Your task to perform on an android device: clear all cookies in the chrome app Image 0: 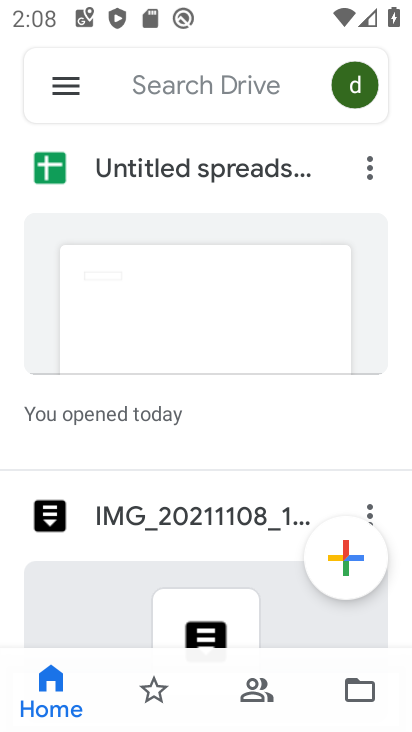
Step 0: press home button
Your task to perform on an android device: clear all cookies in the chrome app Image 1: 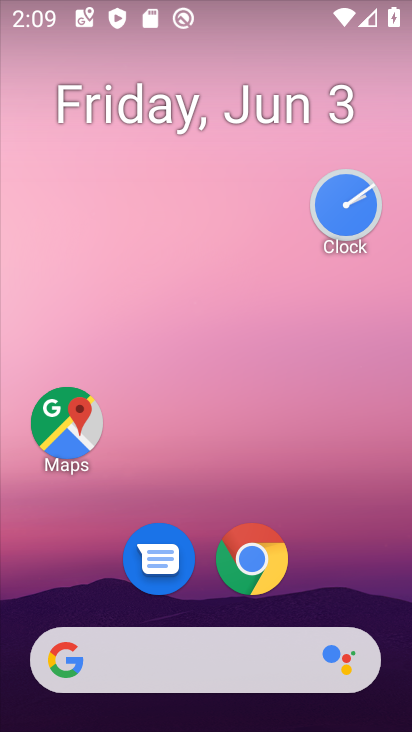
Step 1: click (264, 546)
Your task to perform on an android device: clear all cookies in the chrome app Image 2: 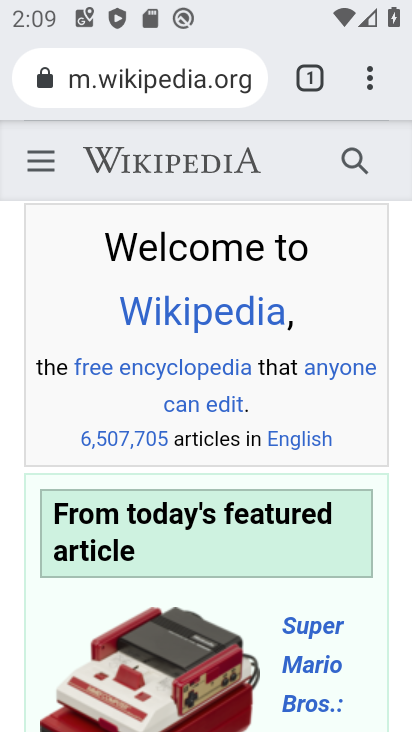
Step 2: click (375, 79)
Your task to perform on an android device: clear all cookies in the chrome app Image 3: 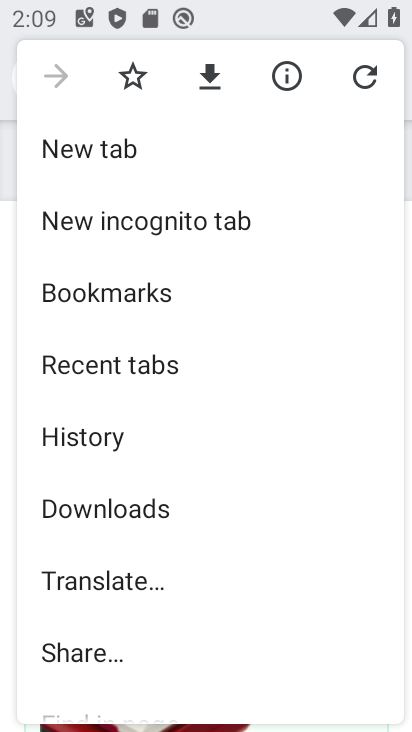
Step 3: drag from (293, 568) to (290, 261)
Your task to perform on an android device: clear all cookies in the chrome app Image 4: 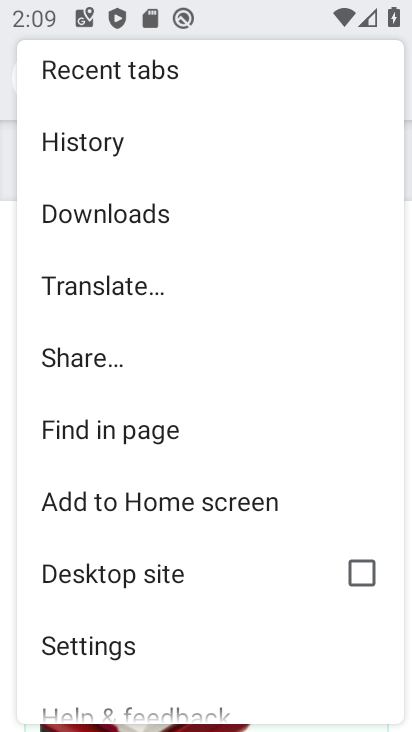
Step 4: click (198, 641)
Your task to perform on an android device: clear all cookies in the chrome app Image 5: 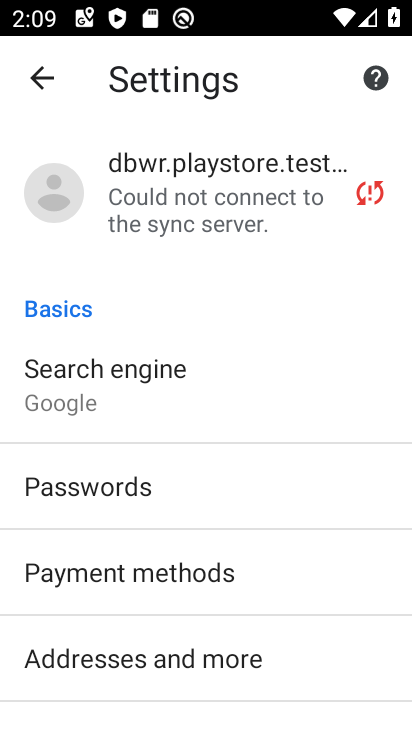
Step 5: drag from (234, 625) to (254, 356)
Your task to perform on an android device: clear all cookies in the chrome app Image 6: 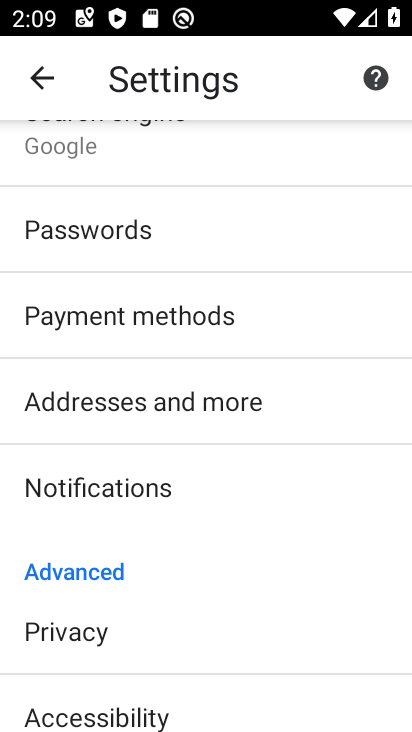
Step 6: drag from (231, 554) to (264, 273)
Your task to perform on an android device: clear all cookies in the chrome app Image 7: 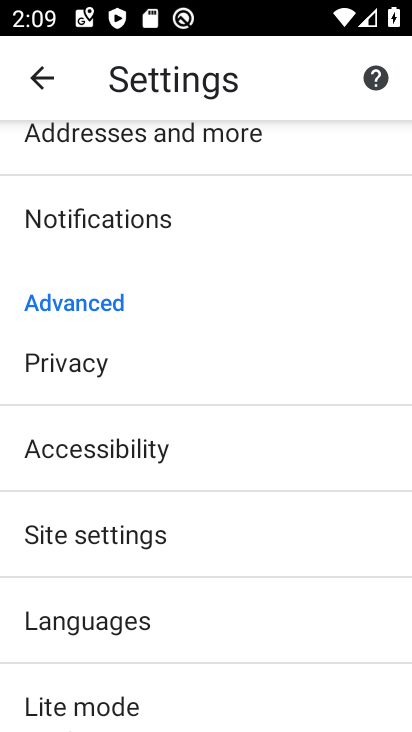
Step 7: click (232, 380)
Your task to perform on an android device: clear all cookies in the chrome app Image 8: 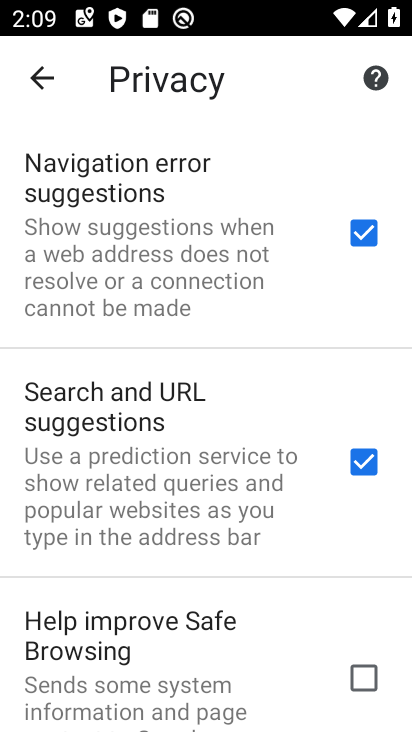
Step 8: drag from (247, 613) to (229, 287)
Your task to perform on an android device: clear all cookies in the chrome app Image 9: 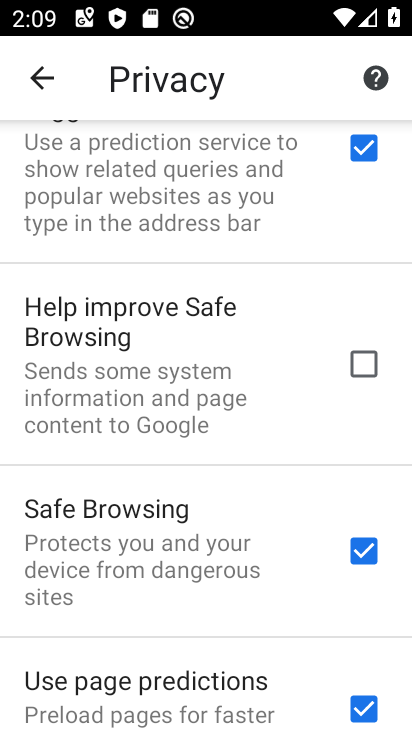
Step 9: drag from (252, 635) to (247, 299)
Your task to perform on an android device: clear all cookies in the chrome app Image 10: 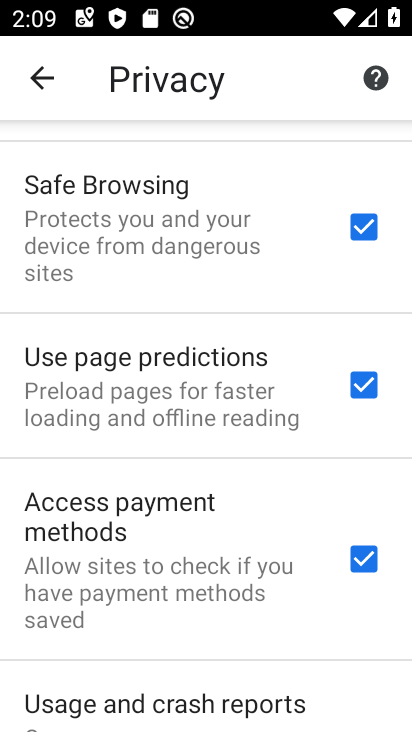
Step 10: drag from (259, 609) to (252, 227)
Your task to perform on an android device: clear all cookies in the chrome app Image 11: 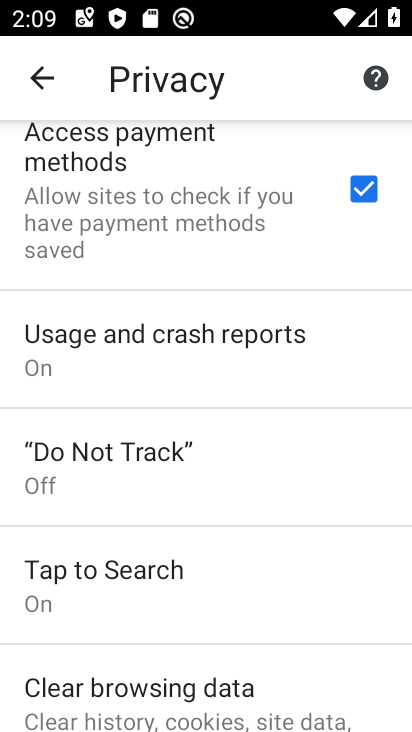
Step 11: drag from (277, 580) to (262, 344)
Your task to perform on an android device: clear all cookies in the chrome app Image 12: 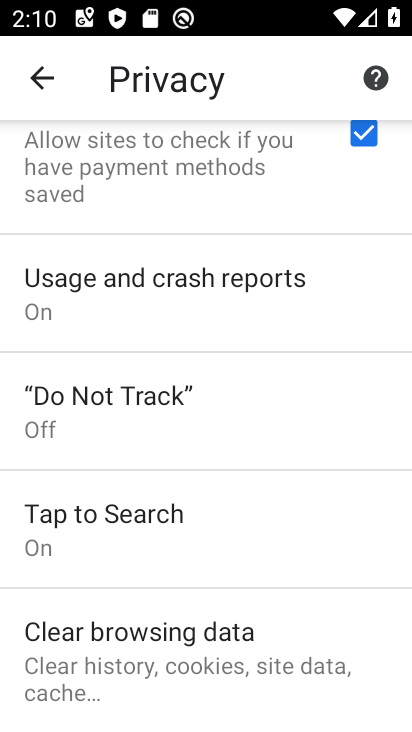
Step 12: click (243, 646)
Your task to perform on an android device: clear all cookies in the chrome app Image 13: 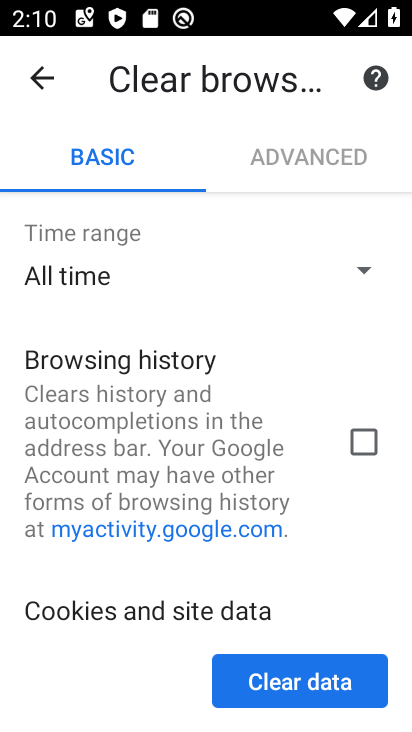
Step 13: drag from (295, 497) to (300, 231)
Your task to perform on an android device: clear all cookies in the chrome app Image 14: 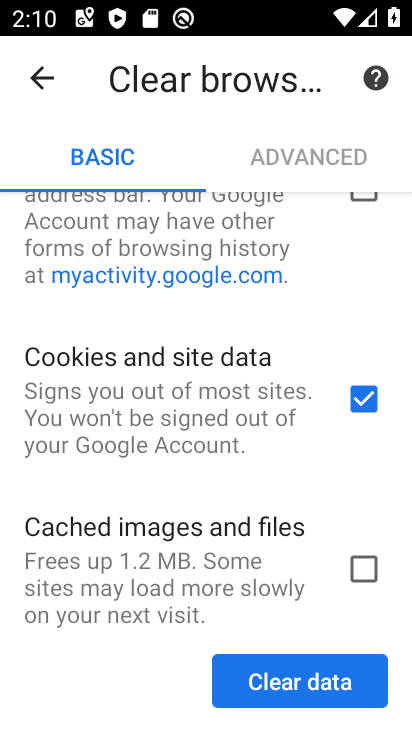
Step 14: click (324, 666)
Your task to perform on an android device: clear all cookies in the chrome app Image 15: 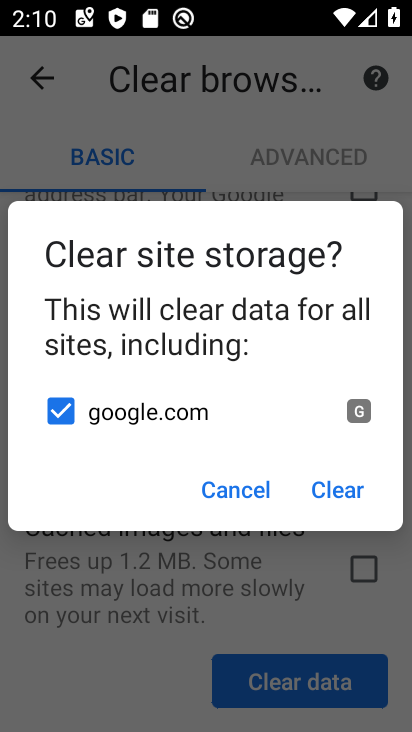
Step 15: click (363, 498)
Your task to perform on an android device: clear all cookies in the chrome app Image 16: 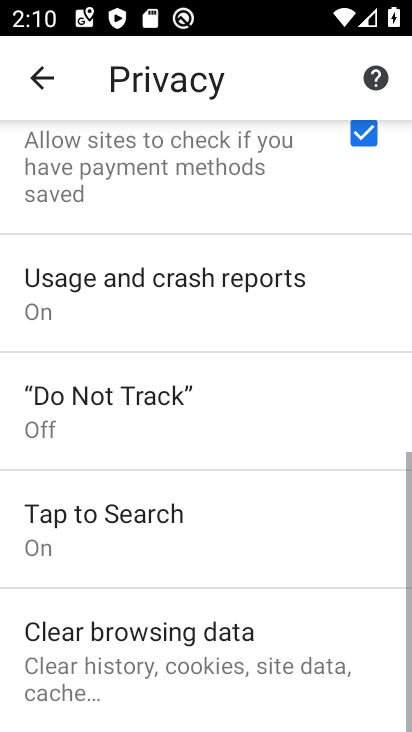
Step 16: task complete